Your task to perform on an android device: Open Amazon Image 0: 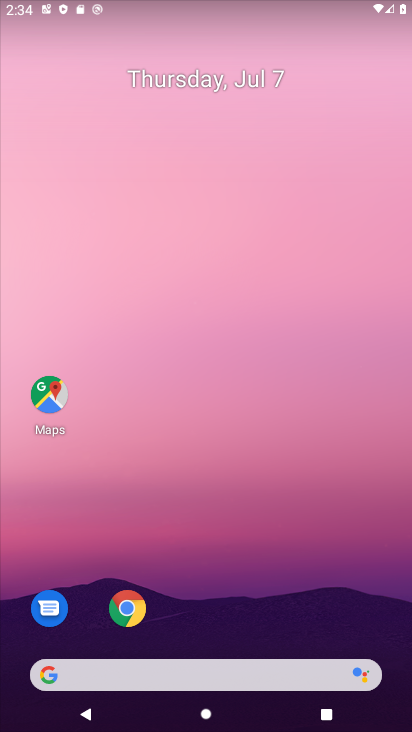
Step 0: drag from (383, 646) to (331, 206)
Your task to perform on an android device: Open Amazon Image 1: 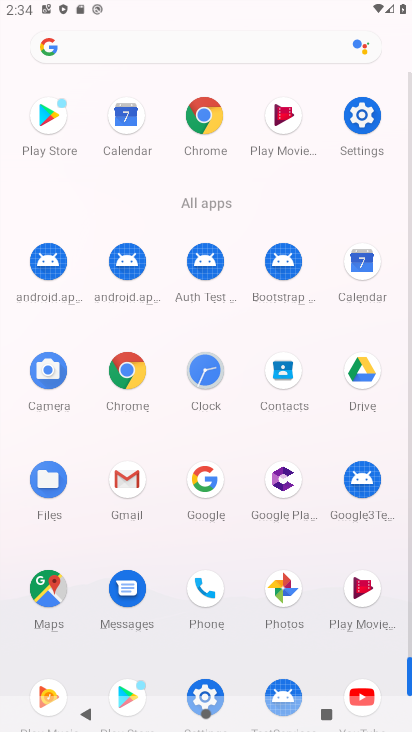
Step 1: click (411, 647)
Your task to perform on an android device: Open Amazon Image 2: 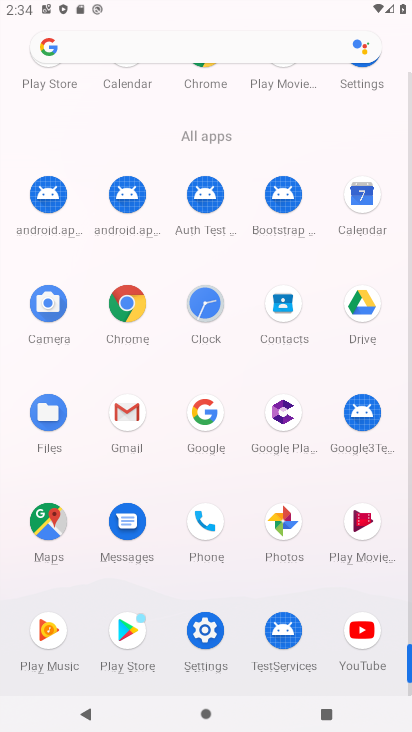
Step 2: click (127, 302)
Your task to perform on an android device: Open Amazon Image 3: 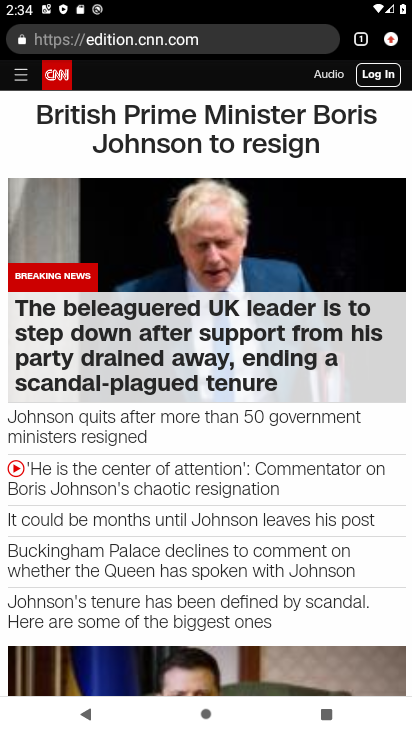
Step 3: click (388, 37)
Your task to perform on an android device: Open Amazon Image 4: 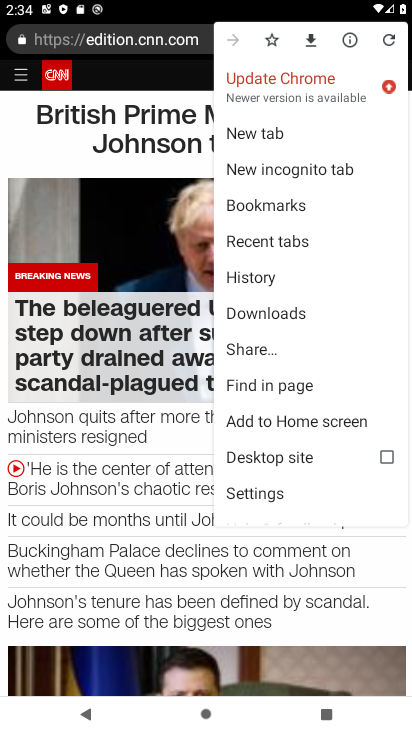
Step 4: click (238, 132)
Your task to perform on an android device: Open Amazon Image 5: 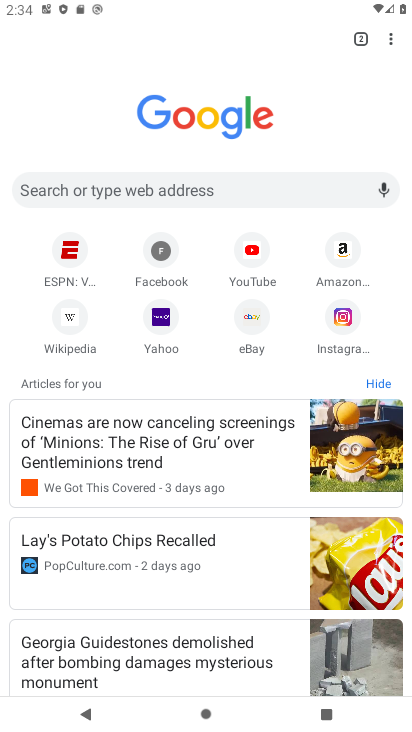
Step 5: click (344, 252)
Your task to perform on an android device: Open Amazon Image 6: 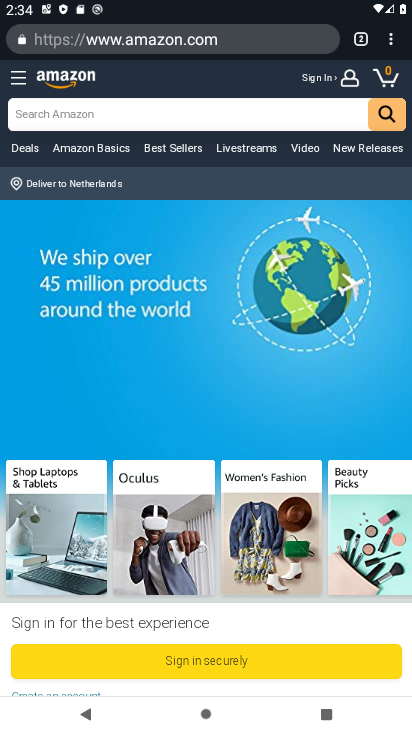
Step 6: task complete